Your task to perform on an android device: toggle show notifications on the lock screen Image 0: 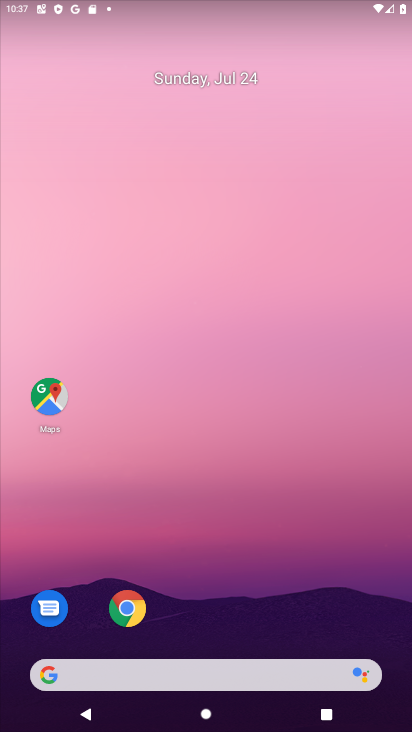
Step 0: drag from (219, 642) to (143, 0)
Your task to perform on an android device: toggle show notifications on the lock screen Image 1: 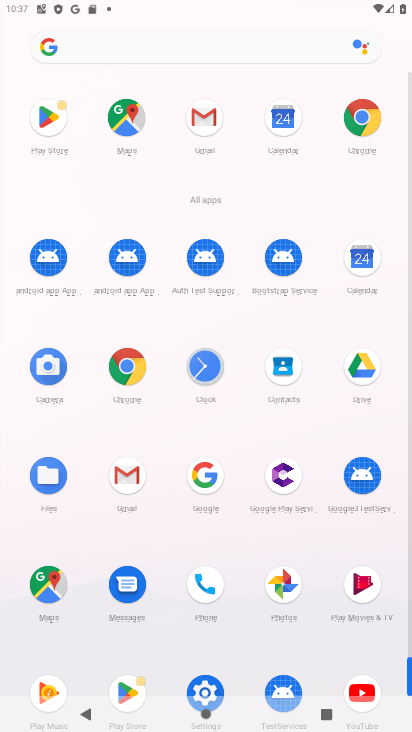
Step 1: click (207, 676)
Your task to perform on an android device: toggle show notifications on the lock screen Image 2: 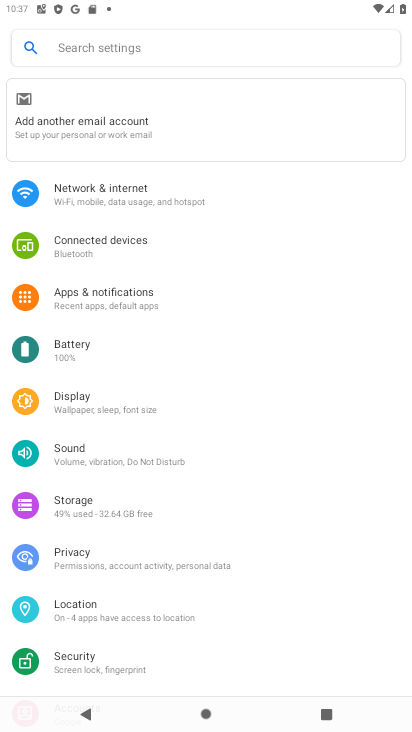
Step 2: click (164, 294)
Your task to perform on an android device: toggle show notifications on the lock screen Image 3: 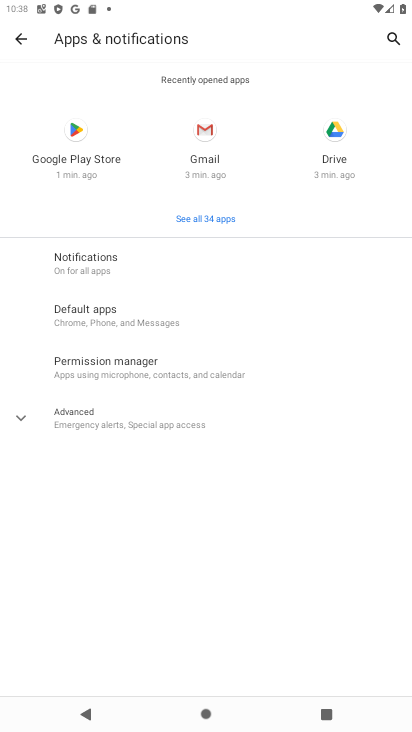
Step 3: click (124, 261)
Your task to perform on an android device: toggle show notifications on the lock screen Image 4: 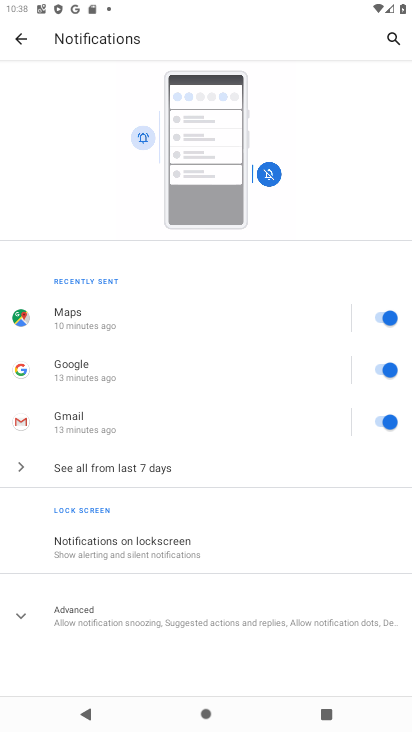
Step 4: click (202, 545)
Your task to perform on an android device: toggle show notifications on the lock screen Image 5: 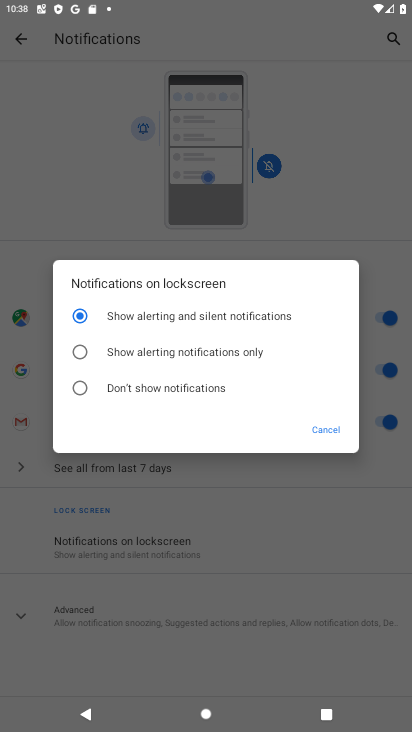
Step 5: click (76, 347)
Your task to perform on an android device: toggle show notifications on the lock screen Image 6: 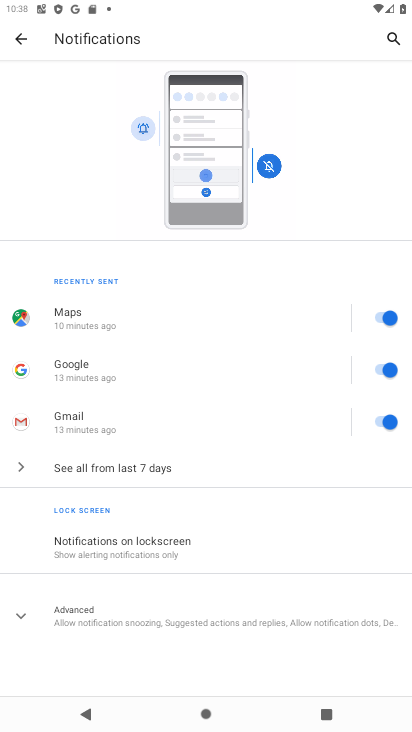
Step 6: task complete